Your task to perform on an android device: uninstall "Facebook" Image 0: 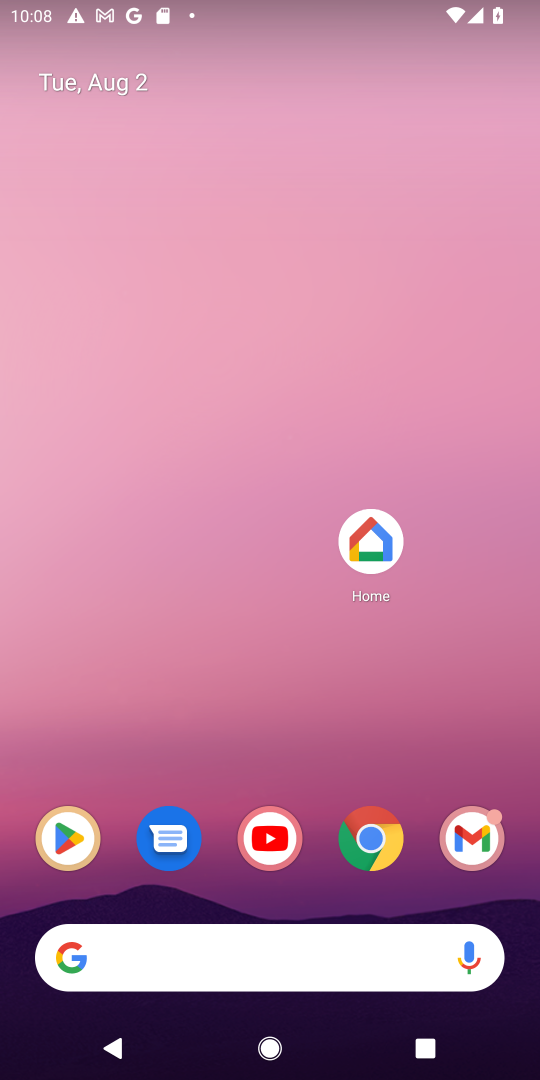
Step 0: press home button
Your task to perform on an android device: uninstall "Facebook" Image 1: 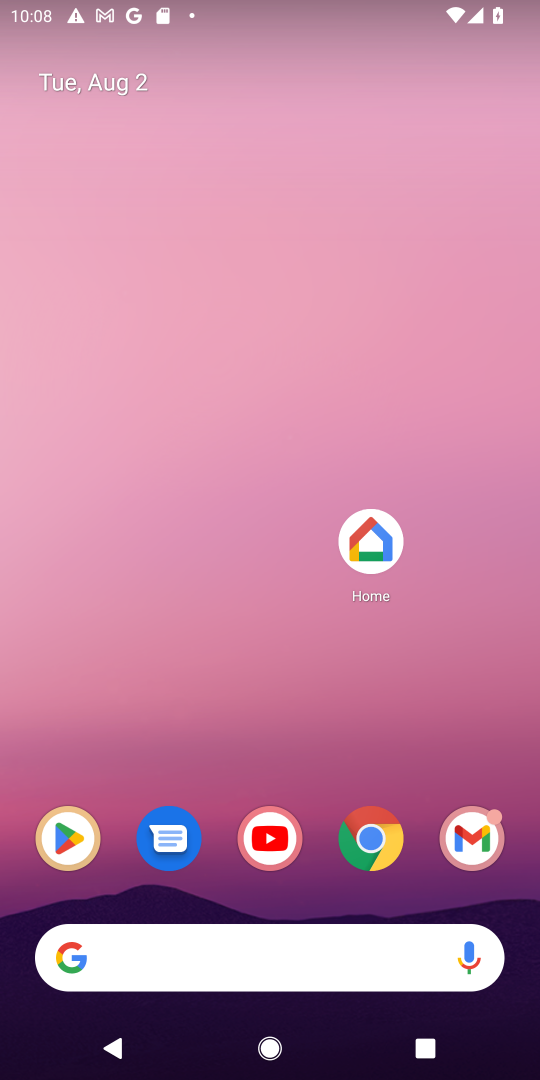
Step 1: drag from (223, 581) to (258, 152)
Your task to perform on an android device: uninstall "Facebook" Image 2: 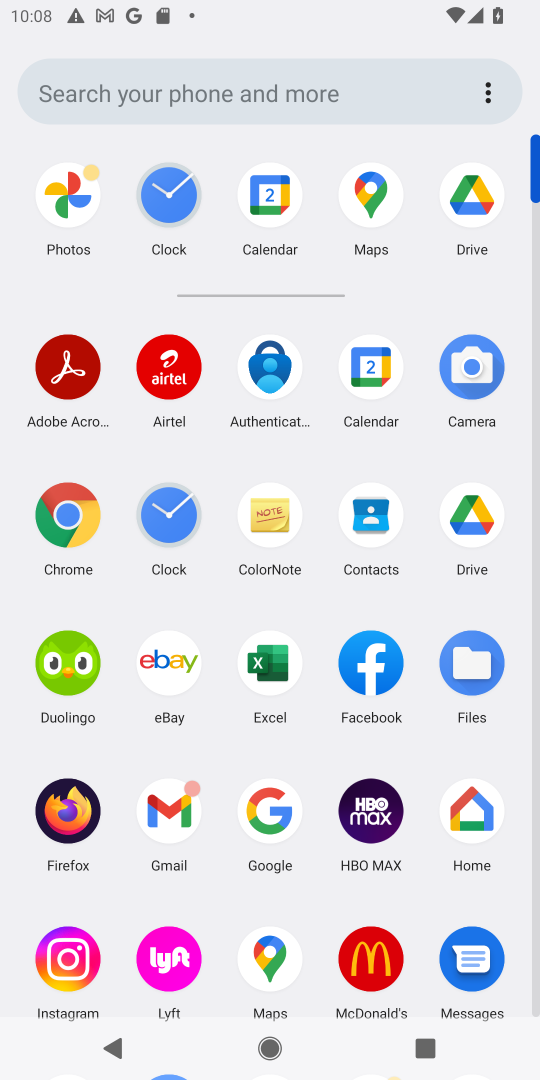
Step 2: drag from (206, 902) to (194, 545)
Your task to perform on an android device: uninstall "Facebook" Image 3: 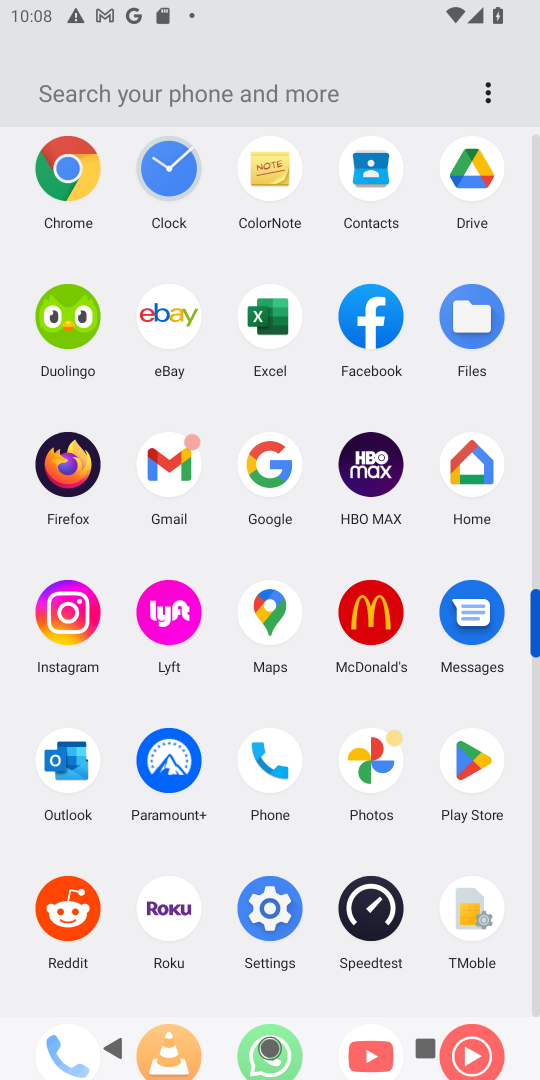
Step 3: click (486, 769)
Your task to perform on an android device: uninstall "Facebook" Image 4: 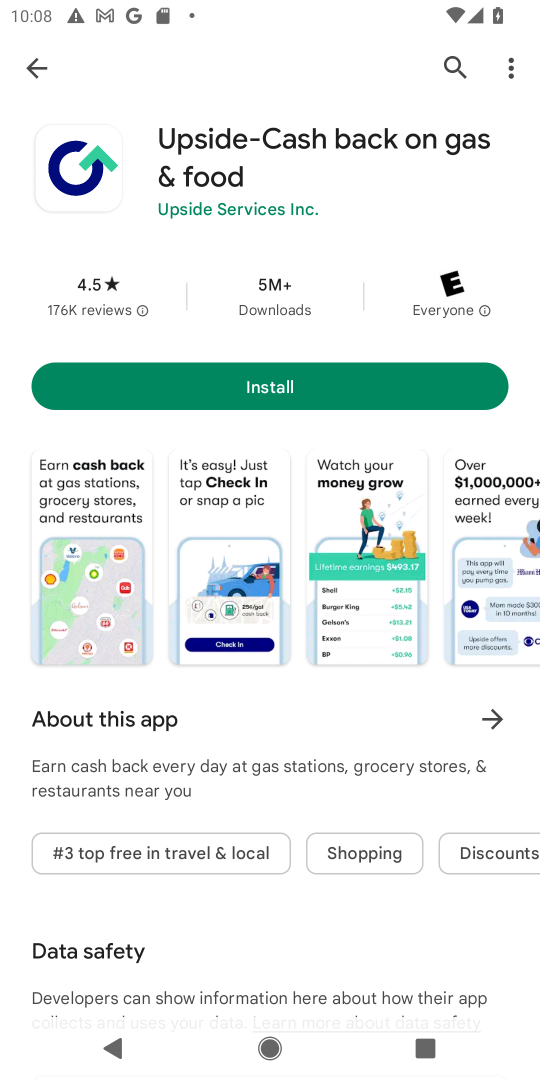
Step 4: click (448, 57)
Your task to perform on an android device: uninstall "Facebook" Image 5: 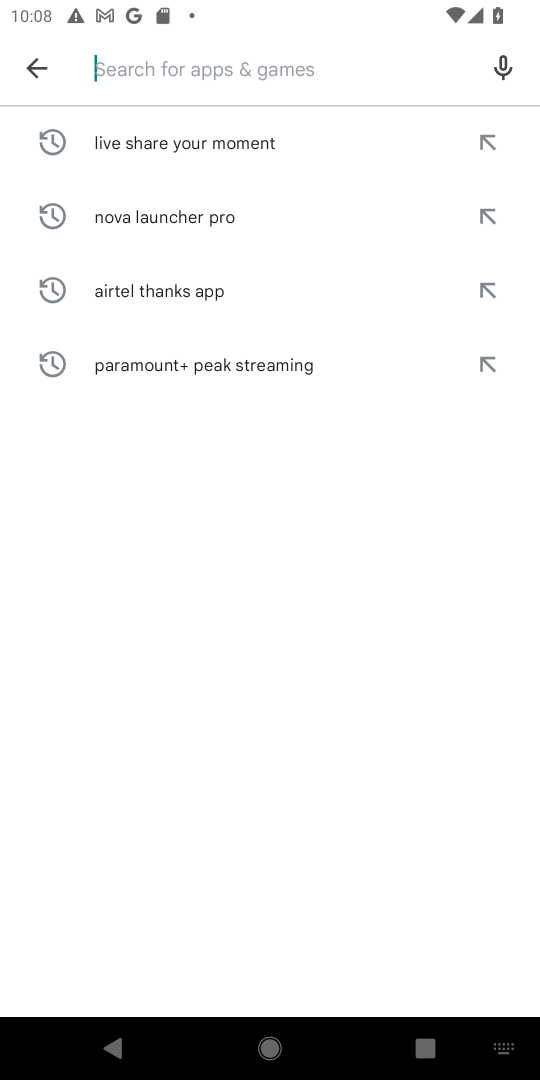
Step 5: click (407, 76)
Your task to perform on an android device: uninstall "Facebook" Image 6: 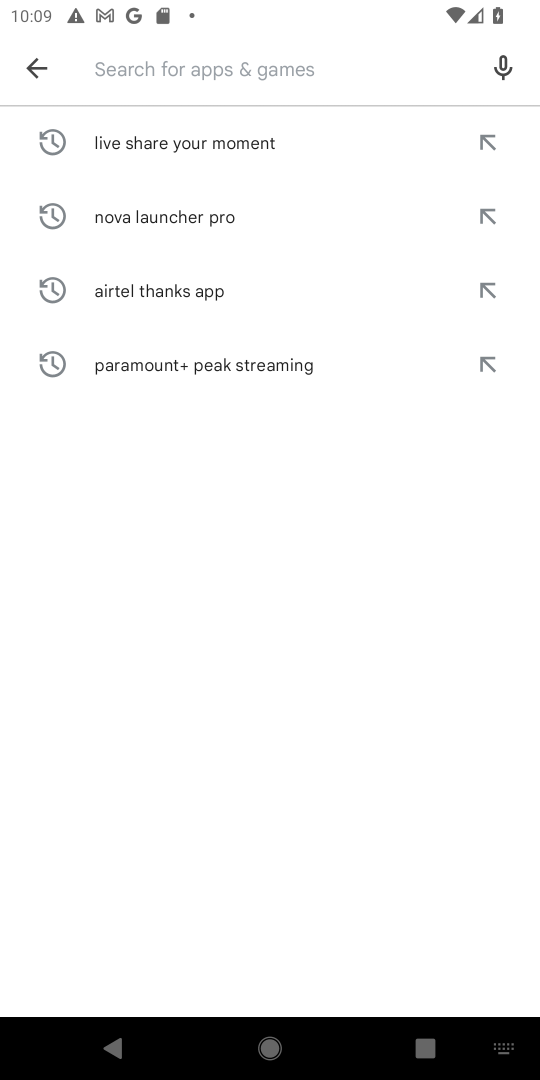
Step 6: type "facebook"
Your task to perform on an android device: uninstall "Facebook" Image 7: 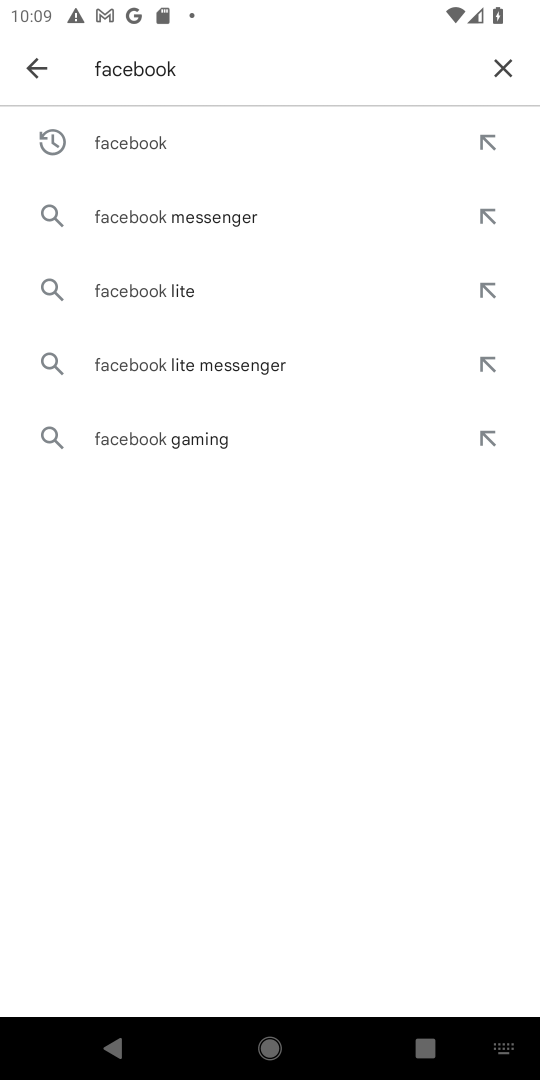
Step 7: click (187, 140)
Your task to perform on an android device: uninstall "Facebook" Image 8: 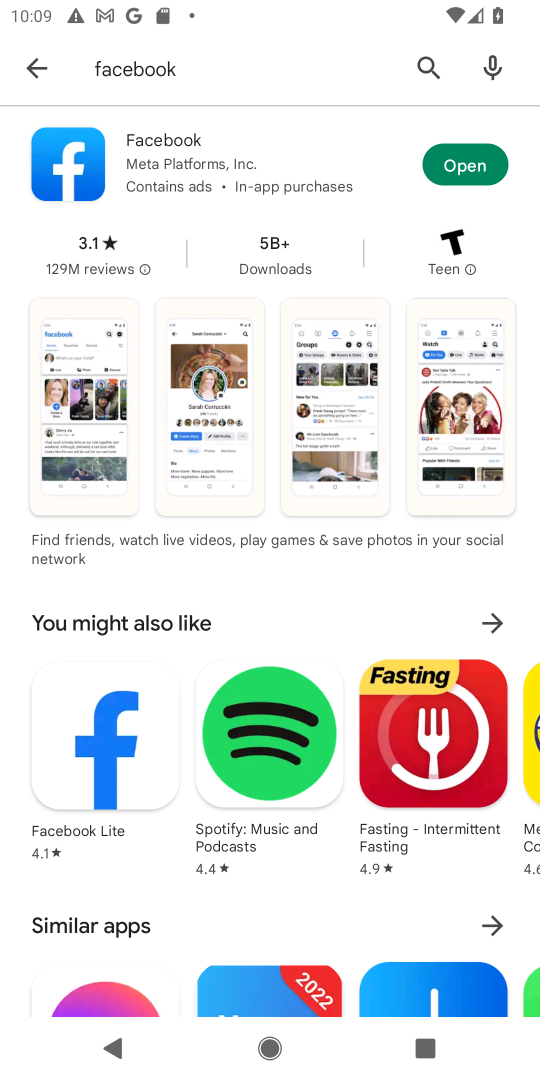
Step 8: task complete